Your task to perform on an android device: Go to CNN.com Image 0: 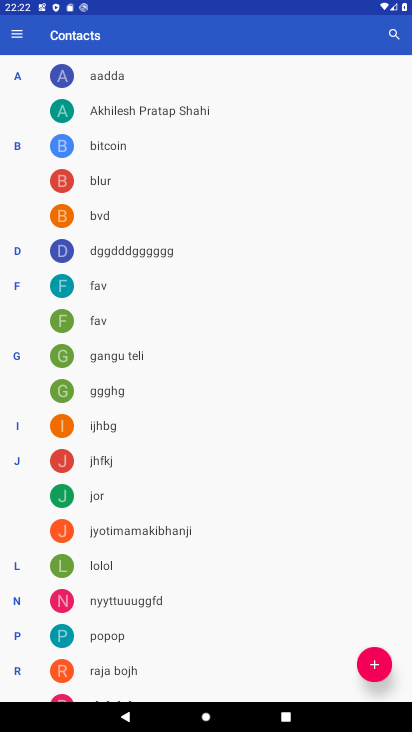
Step 0: press home button
Your task to perform on an android device: Go to CNN.com Image 1: 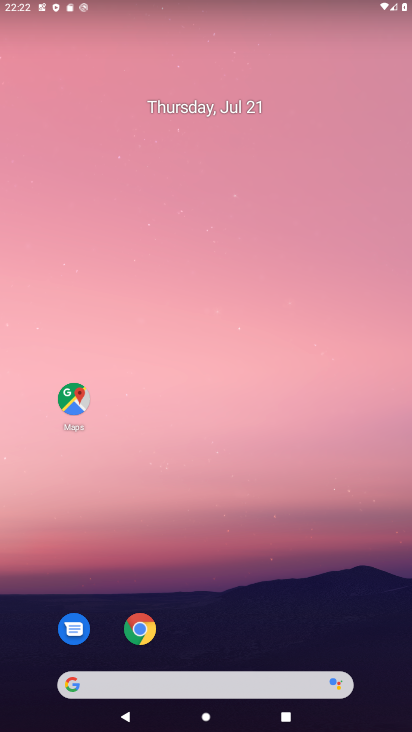
Step 1: click (63, 686)
Your task to perform on an android device: Go to CNN.com Image 2: 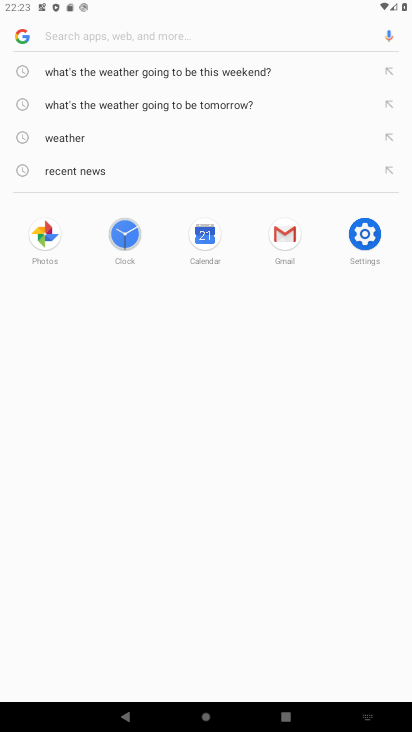
Step 2: type "CNN.com"
Your task to perform on an android device: Go to CNN.com Image 3: 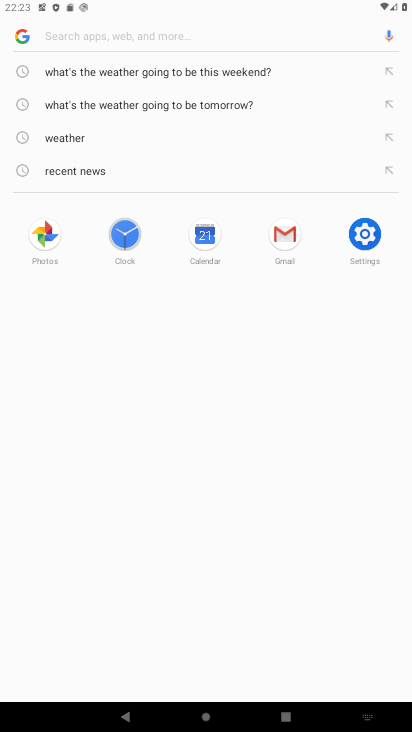
Step 3: click (83, 38)
Your task to perform on an android device: Go to CNN.com Image 4: 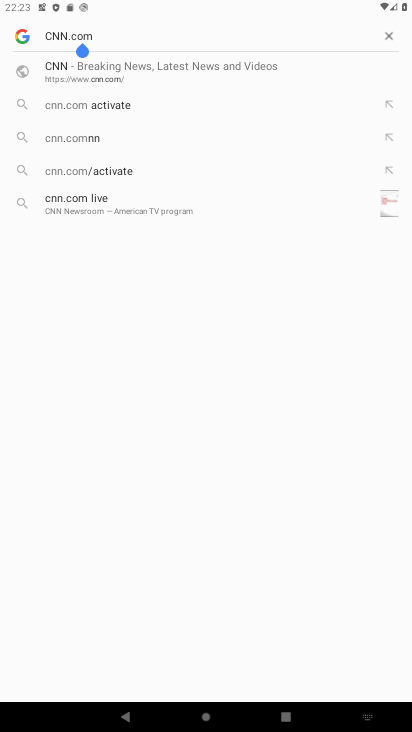
Step 4: press enter
Your task to perform on an android device: Go to CNN.com Image 5: 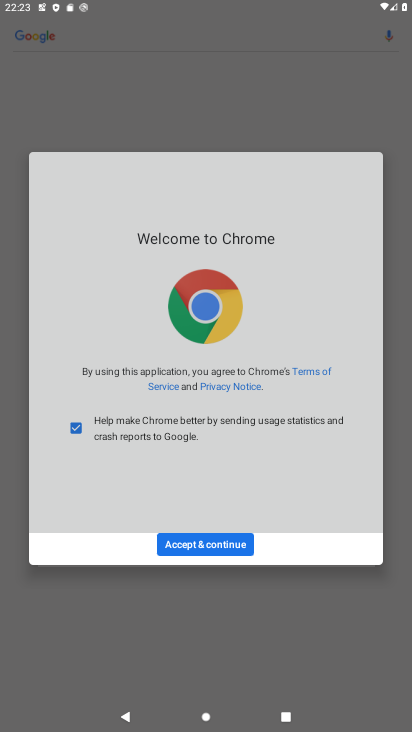
Step 5: click (202, 556)
Your task to perform on an android device: Go to CNN.com Image 6: 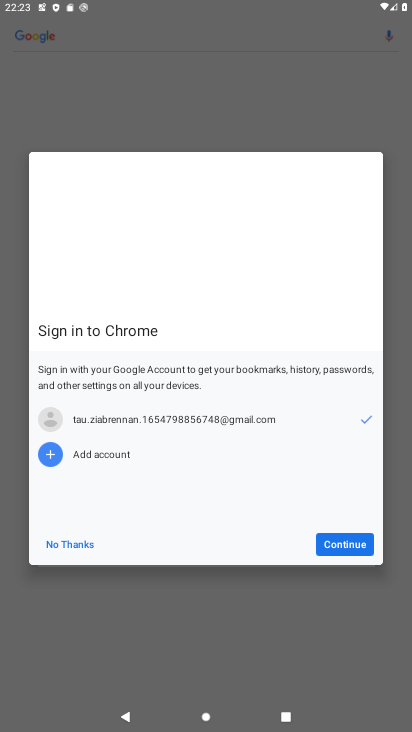
Step 6: click (342, 537)
Your task to perform on an android device: Go to CNN.com Image 7: 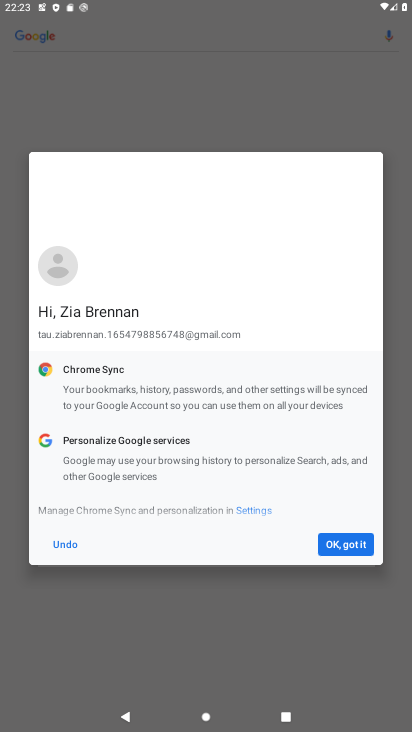
Step 7: click (342, 537)
Your task to perform on an android device: Go to CNN.com Image 8: 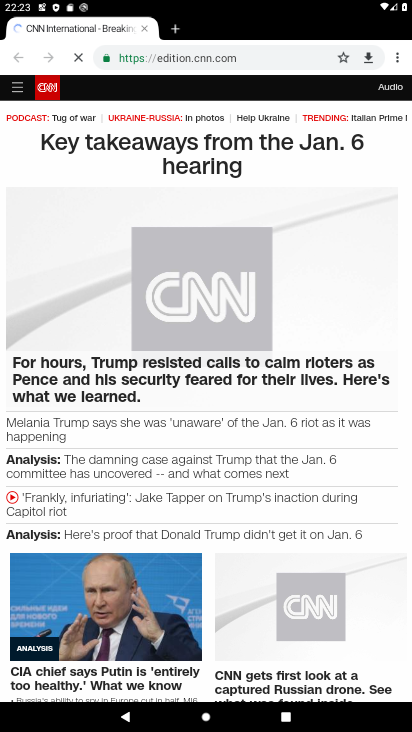
Step 8: task complete